Your task to perform on an android device: What's the weather like in Paris? Image 0: 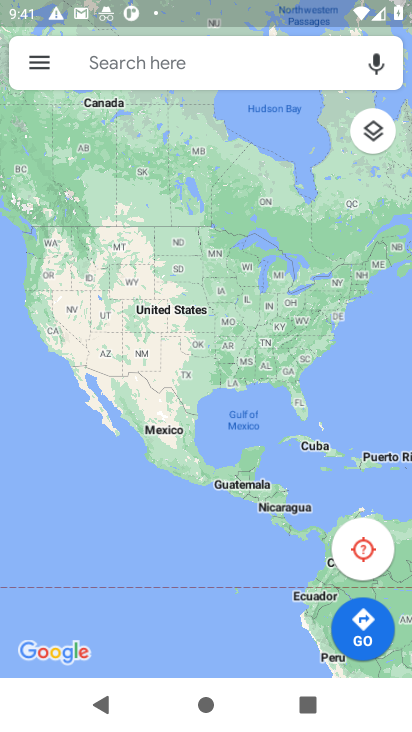
Step 0: press home button
Your task to perform on an android device: What's the weather like in Paris? Image 1: 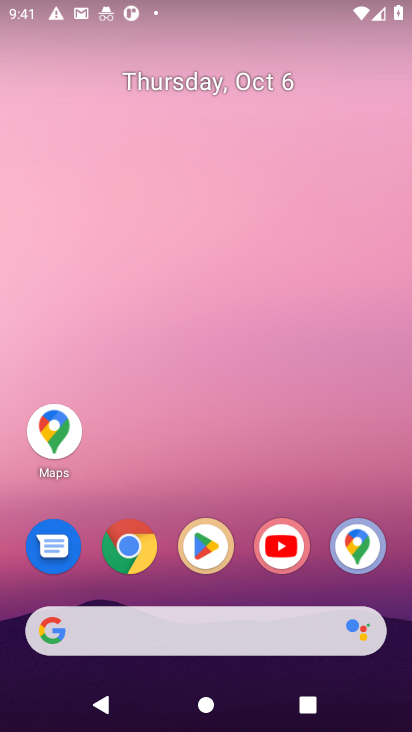
Step 1: click (124, 551)
Your task to perform on an android device: What's the weather like in Paris? Image 2: 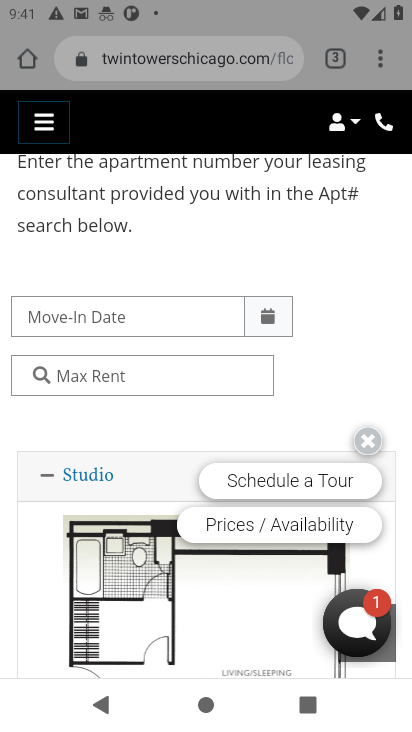
Step 2: click (150, 40)
Your task to perform on an android device: What's the weather like in Paris? Image 3: 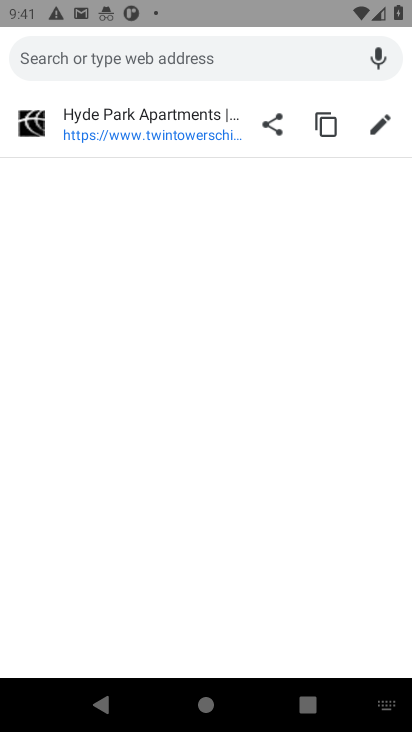
Step 3: type "weather in paris?"
Your task to perform on an android device: What's the weather like in Paris? Image 4: 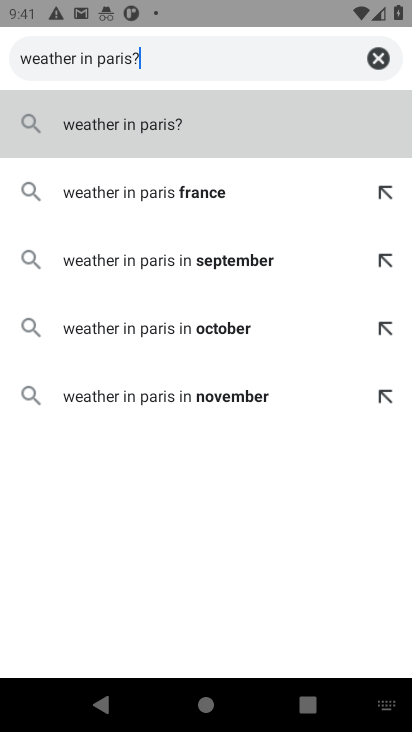
Step 4: click (128, 127)
Your task to perform on an android device: What's the weather like in Paris? Image 5: 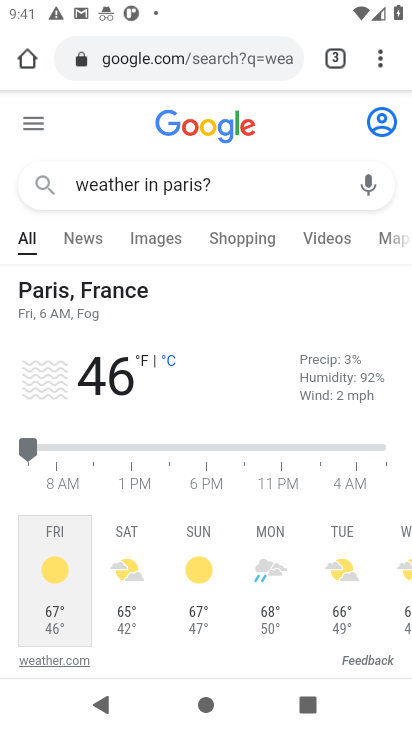
Step 5: task complete